Your task to perform on an android device: Search for "alienware area 51" on walmart, select the first entry, add it to the cart, then select checkout. Image 0: 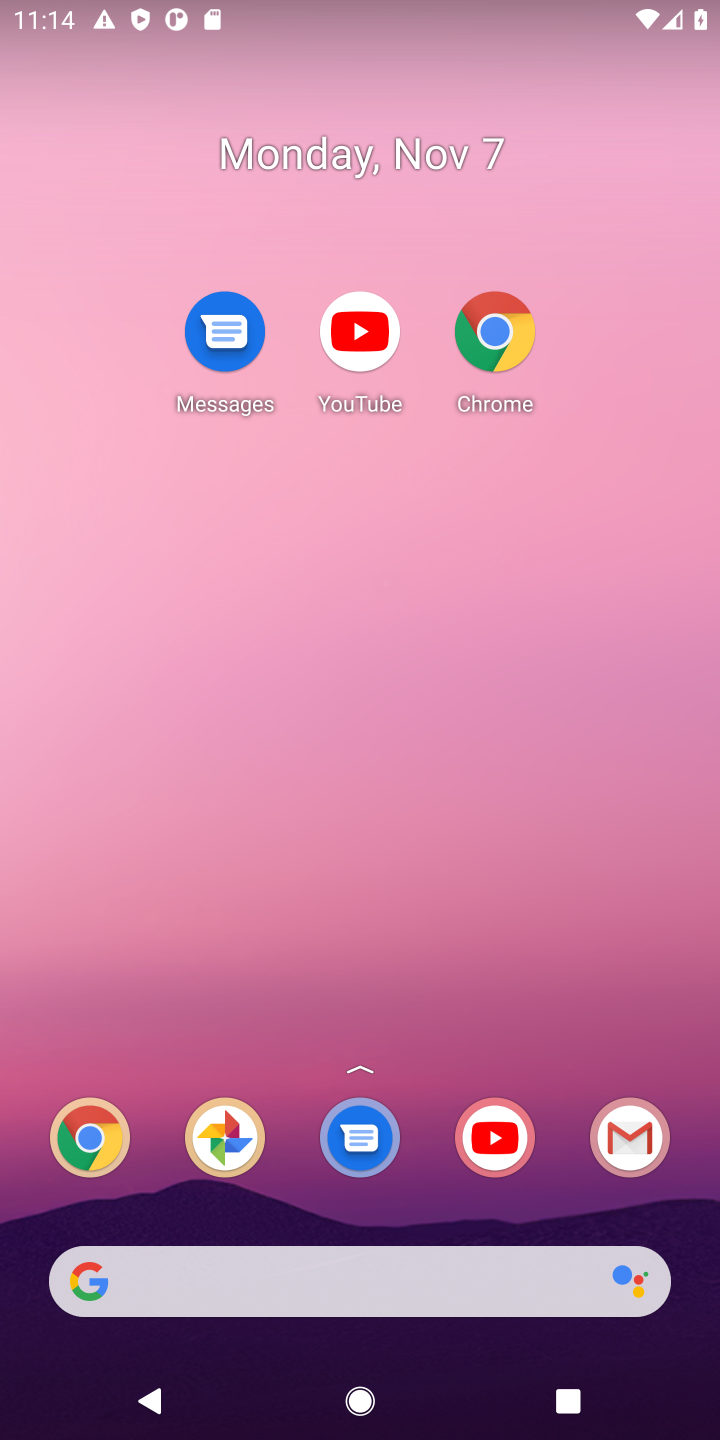
Step 0: drag from (405, 1162) to (408, 257)
Your task to perform on an android device: Search for "alienware area 51" on walmart, select the first entry, add it to the cart, then select checkout. Image 1: 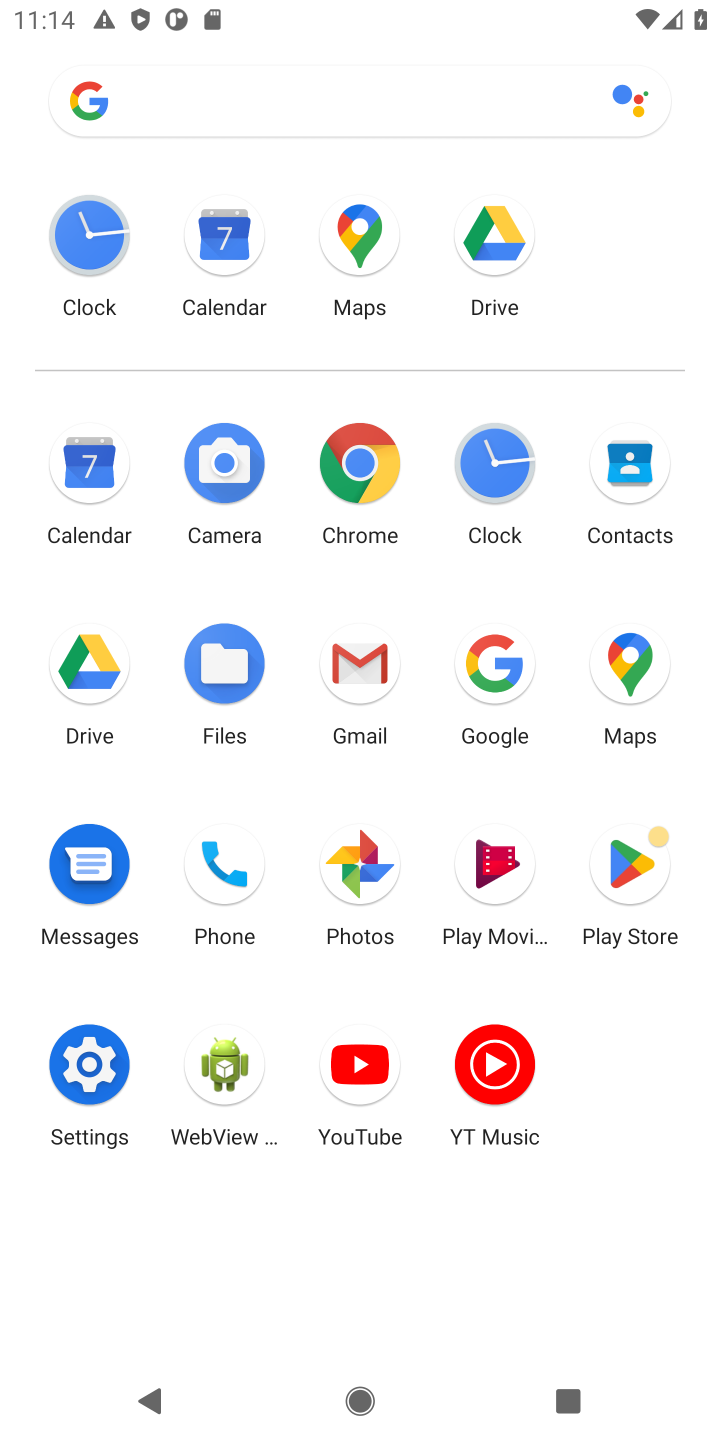
Step 1: click (365, 470)
Your task to perform on an android device: Search for "alienware area 51" on walmart, select the first entry, add it to the cart, then select checkout. Image 2: 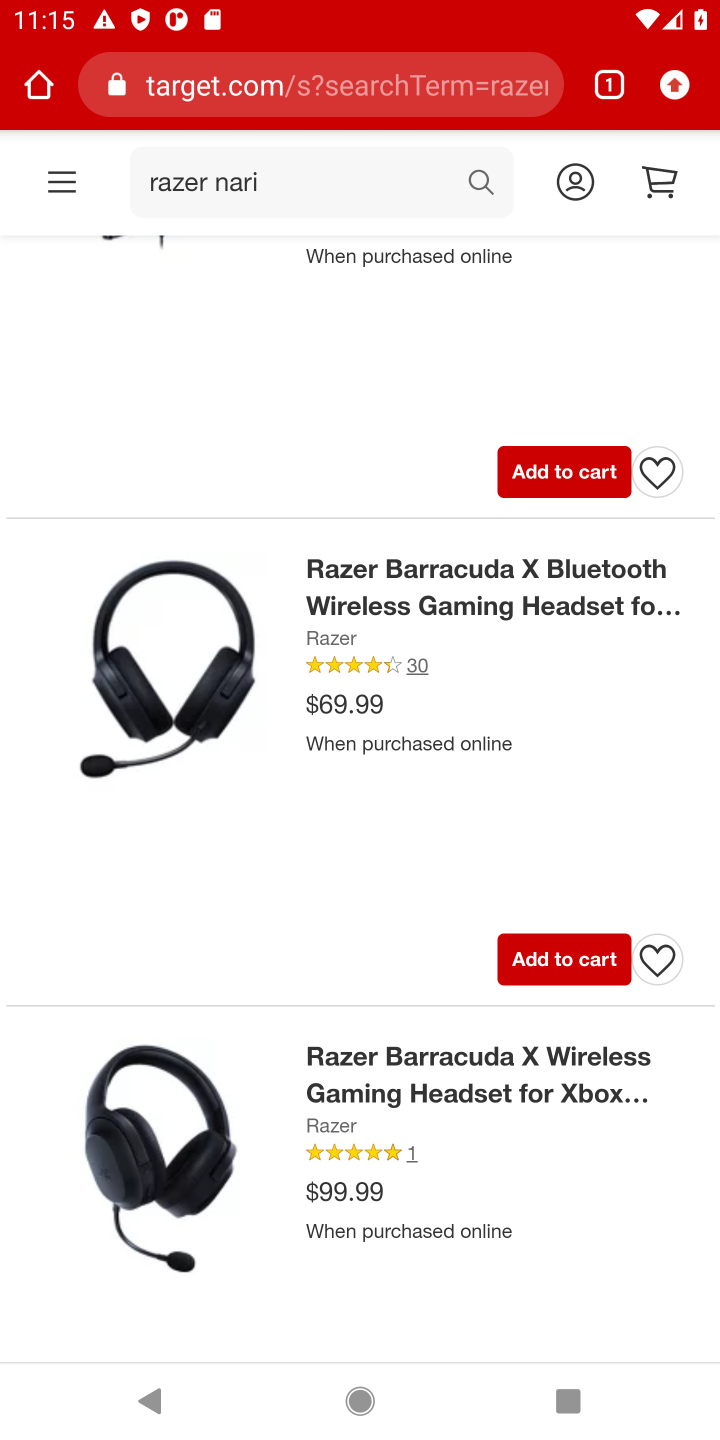
Step 2: click (335, 85)
Your task to perform on an android device: Search for "alienware area 51" on walmart, select the first entry, add it to the cart, then select checkout. Image 3: 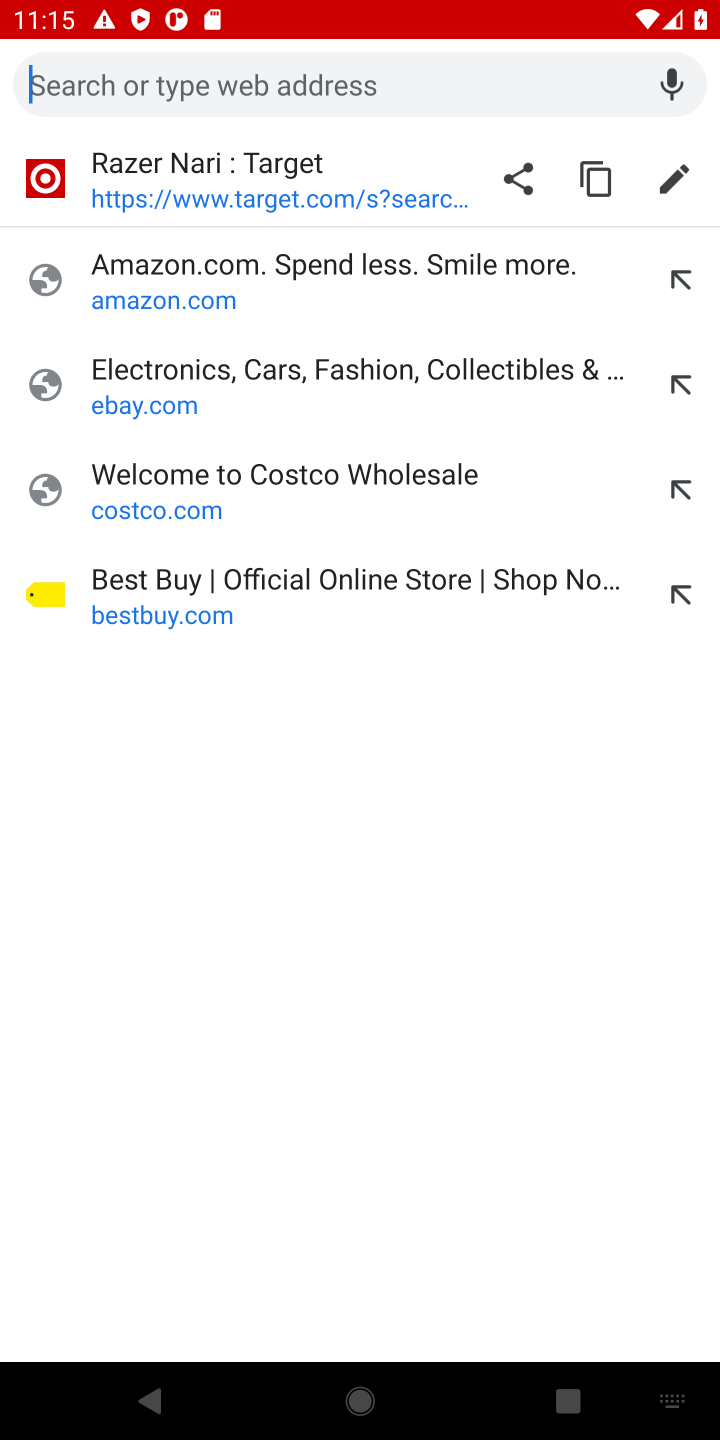
Step 3: type "walmart.com"
Your task to perform on an android device: Search for "alienware area 51" on walmart, select the first entry, add it to the cart, then select checkout. Image 4: 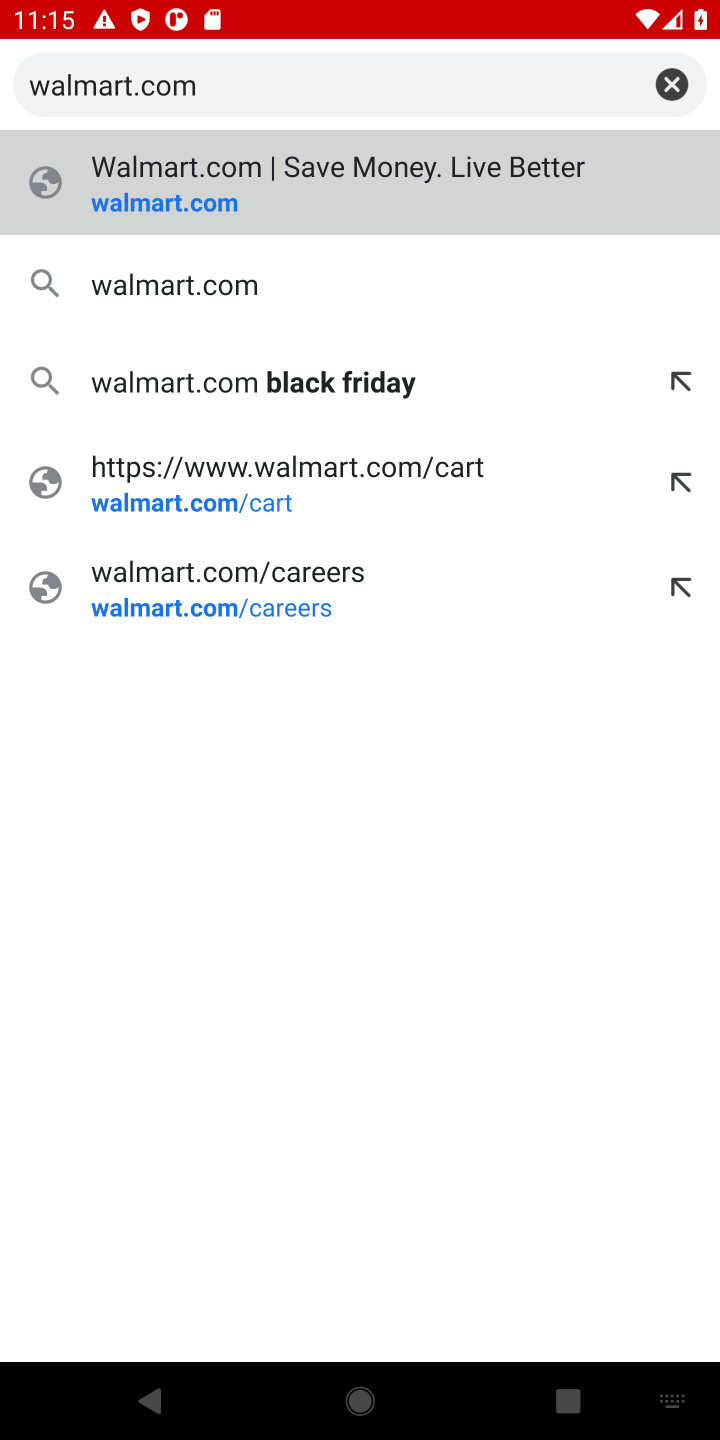
Step 4: press enter
Your task to perform on an android device: Search for "alienware area 51" on walmart, select the first entry, add it to the cart, then select checkout. Image 5: 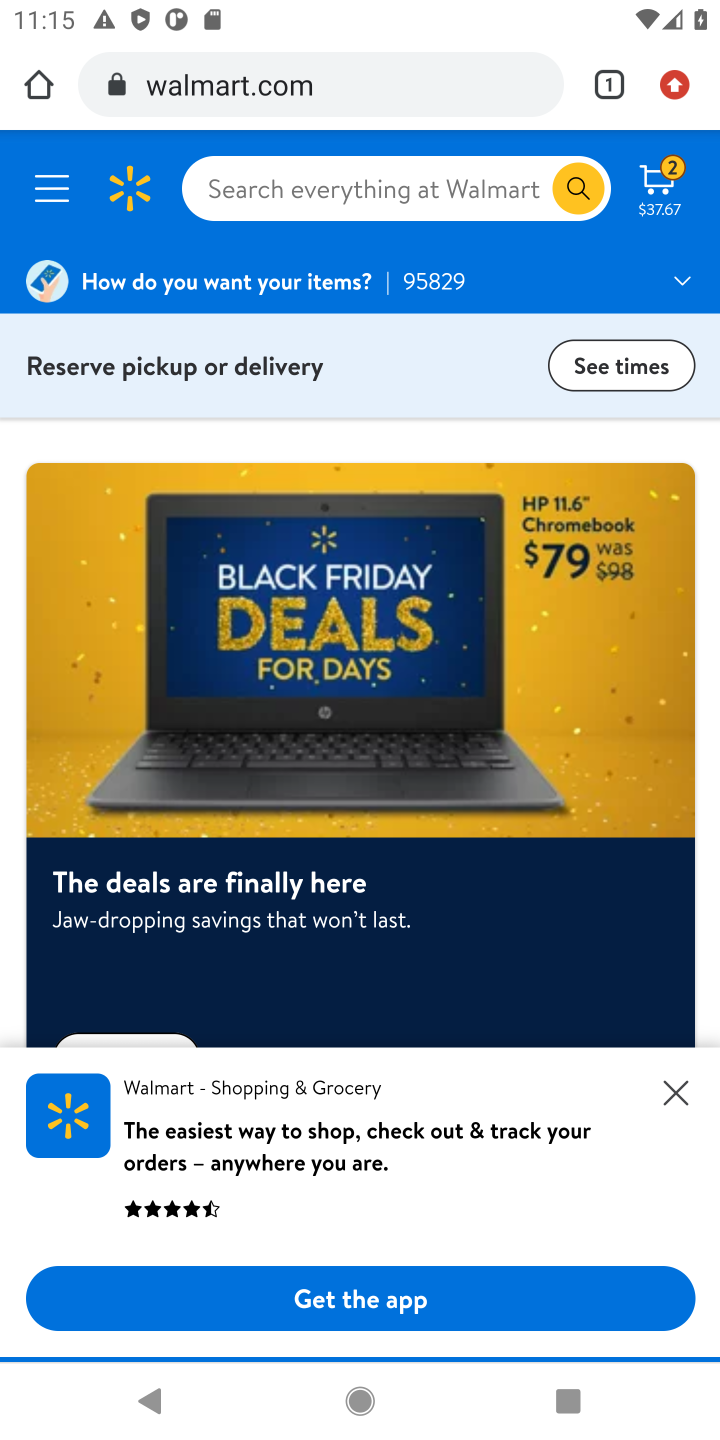
Step 5: click (405, 202)
Your task to perform on an android device: Search for "alienware area 51" on walmart, select the first entry, add it to the cart, then select checkout. Image 6: 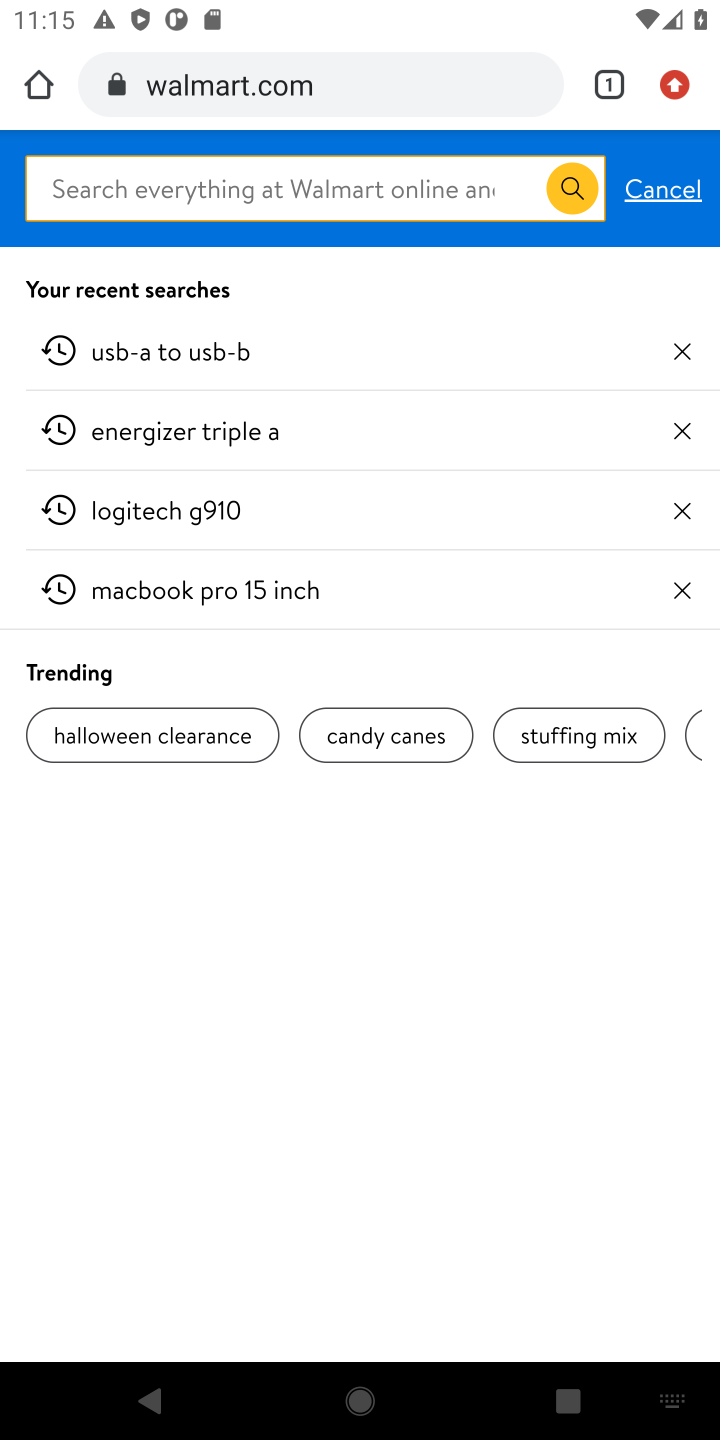
Step 6: type "alienware area 51"
Your task to perform on an android device: Search for "alienware area 51" on walmart, select the first entry, add it to the cart, then select checkout. Image 7: 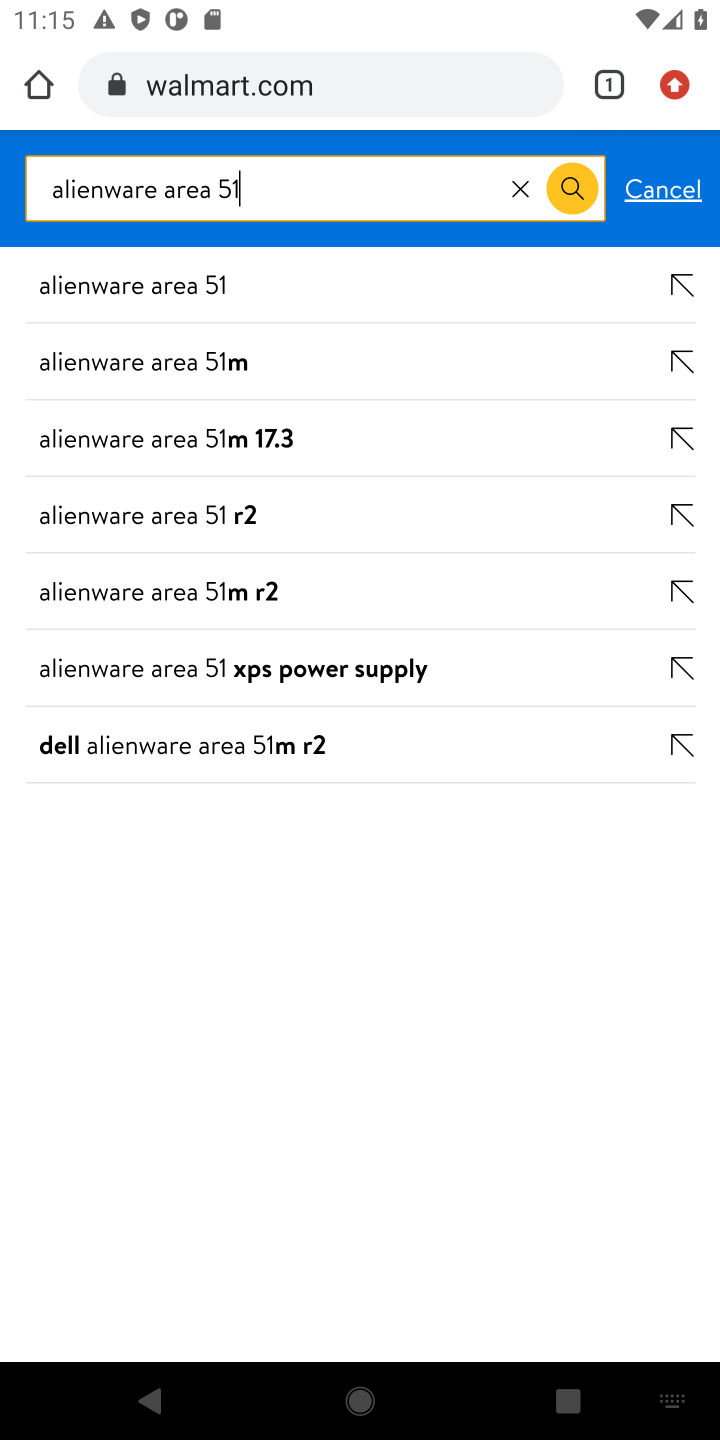
Step 7: press enter
Your task to perform on an android device: Search for "alienware area 51" on walmart, select the first entry, add it to the cart, then select checkout. Image 8: 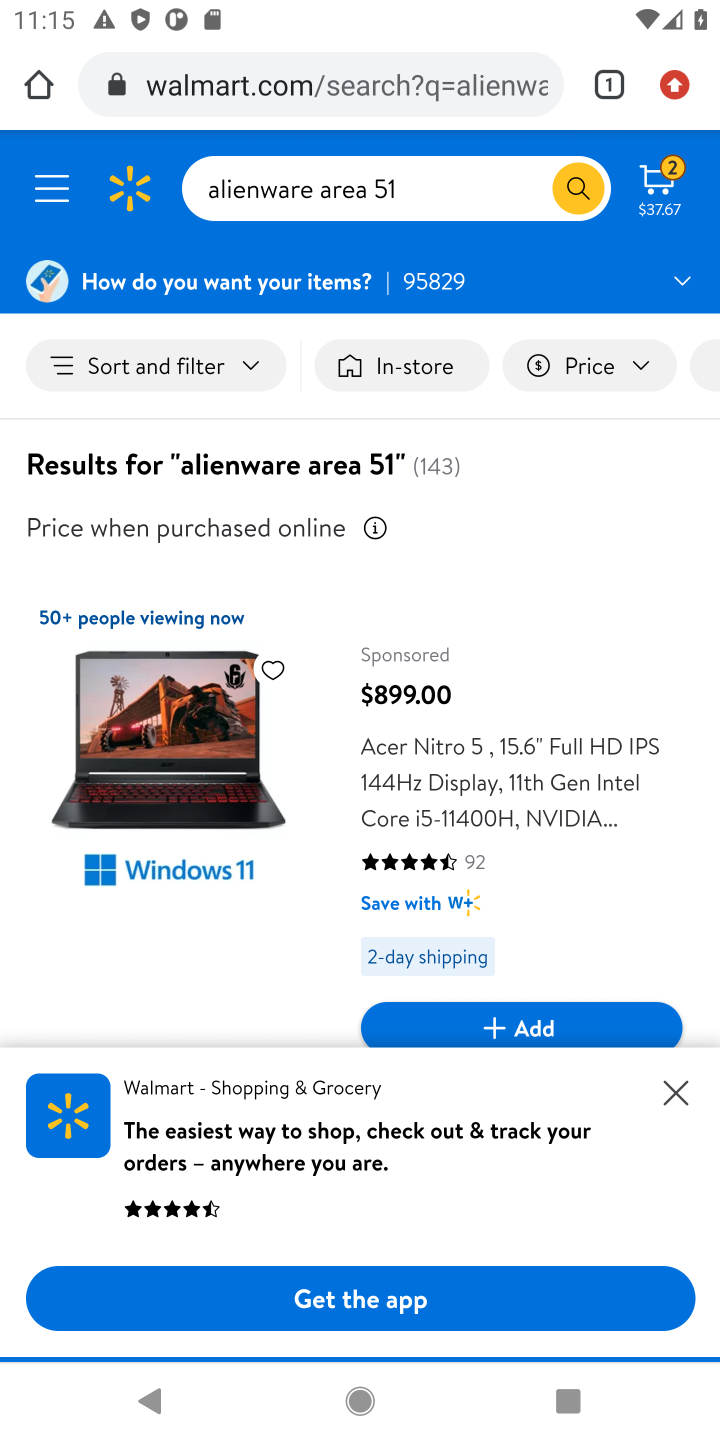
Step 8: drag from (469, 882) to (434, 467)
Your task to perform on an android device: Search for "alienware area 51" on walmart, select the first entry, add it to the cart, then select checkout. Image 9: 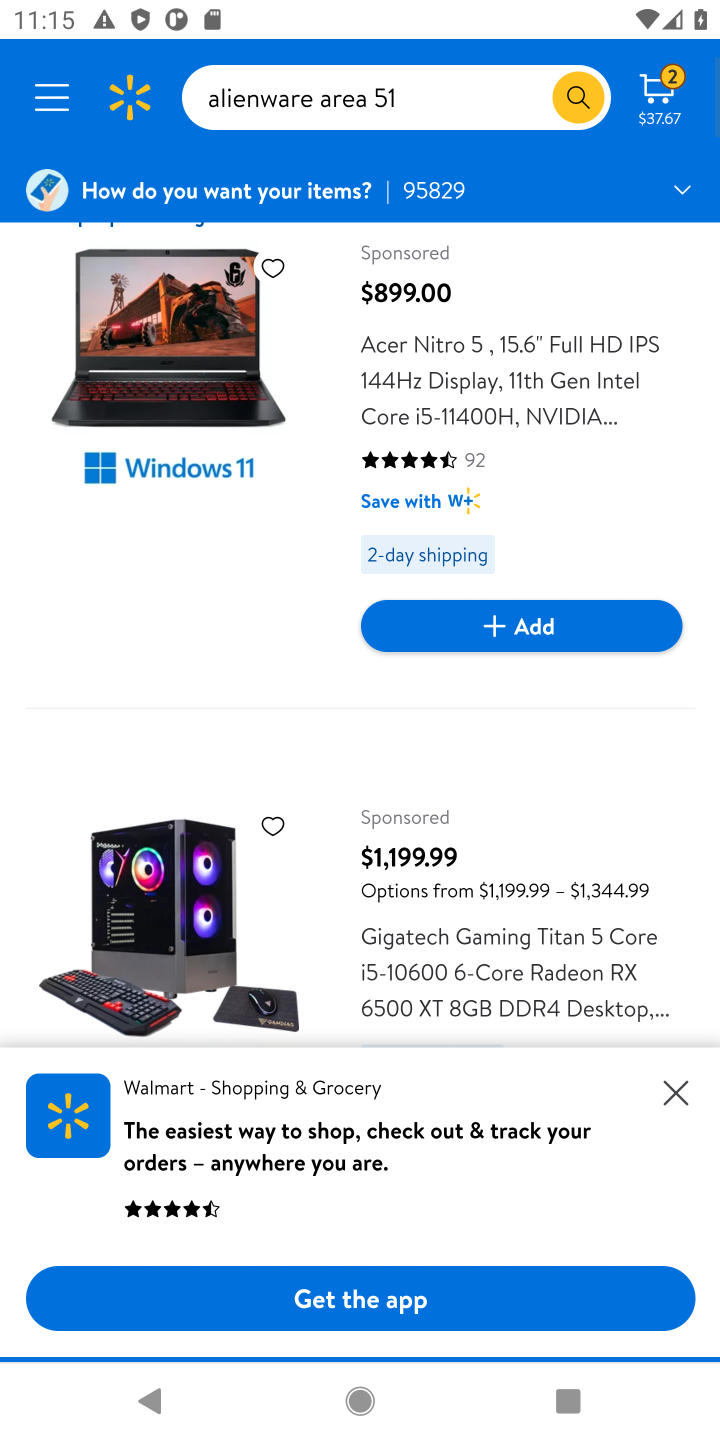
Step 9: drag from (464, 996) to (428, 274)
Your task to perform on an android device: Search for "alienware area 51" on walmart, select the first entry, add it to the cart, then select checkout. Image 10: 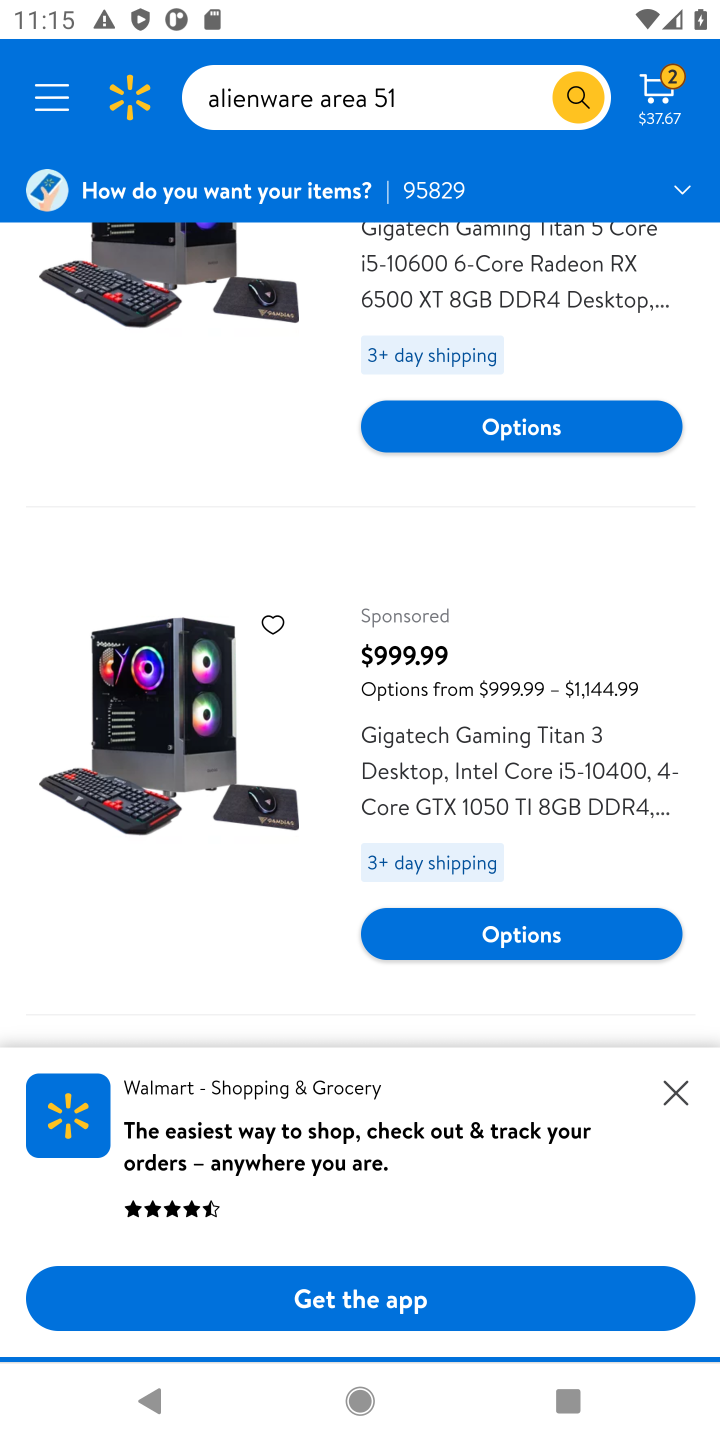
Step 10: drag from (570, 829) to (555, 344)
Your task to perform on an android device: Search for "alienware area 51" on walmart, select the first entry, add it to the cart, then select checkout. Image 11: 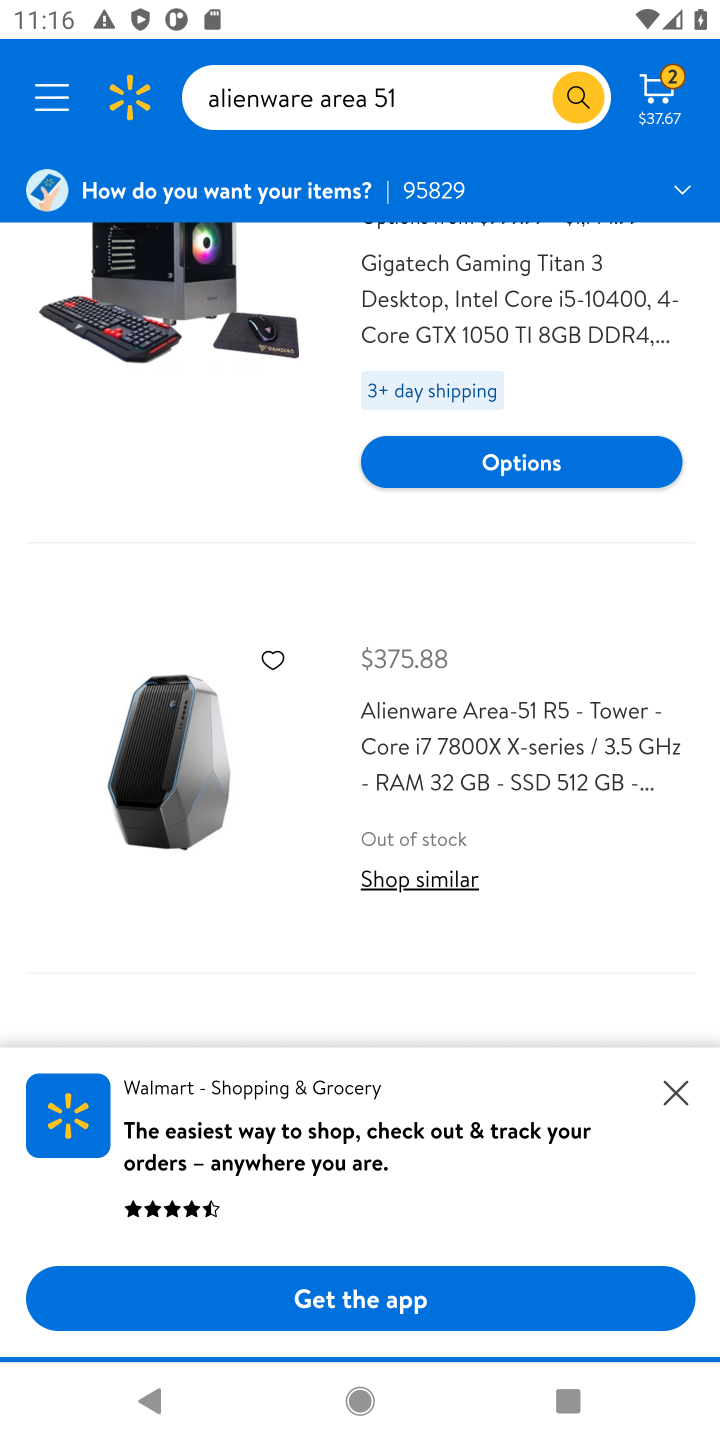
Step 11: drag from (486, 955) to (579, 303)
Your task to perform on an android device: Search for "alienware area 51" on walmart, select the first entry, add it to the cart, then select checkout. Image 12: 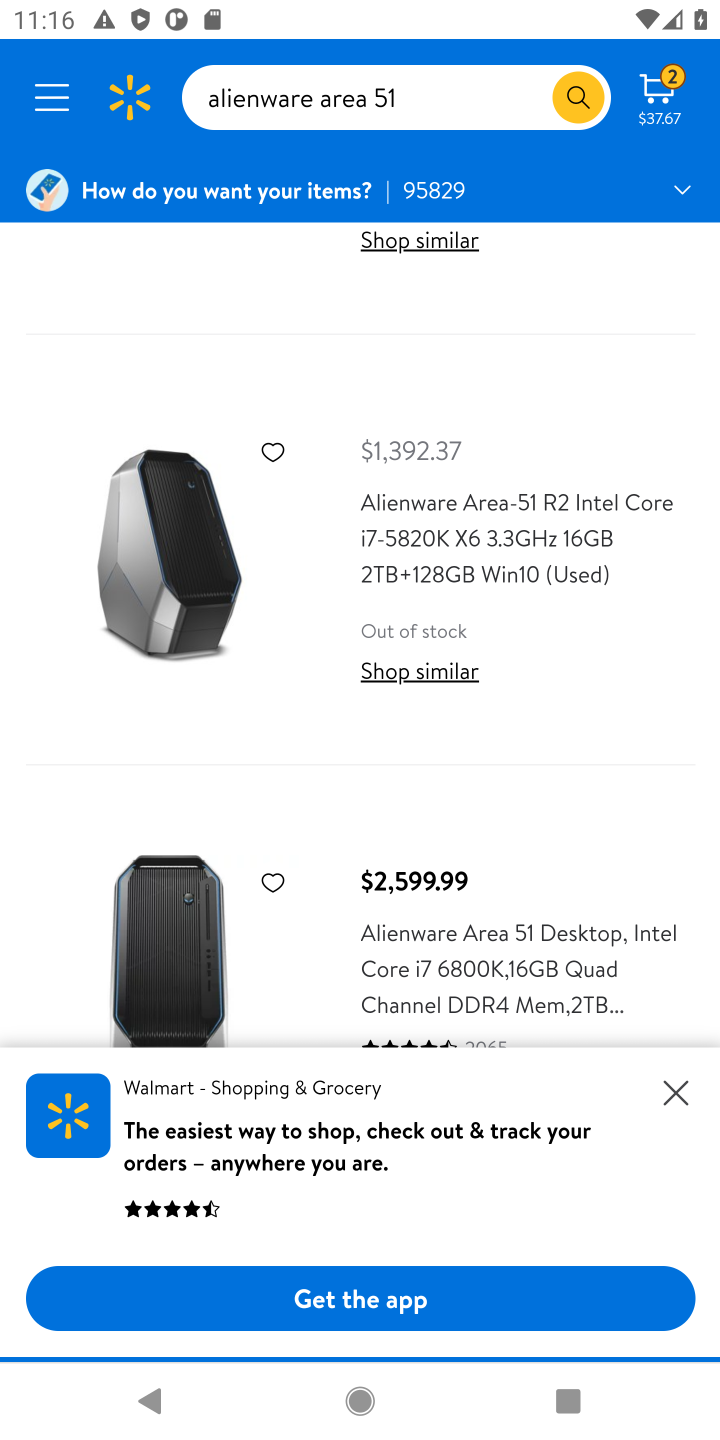
Step 12: drag from (590, 305) to (480, 799)
Your task to perform on an android device: Search for "alienware area 51" on walmart, select the first entry, add it to the cart, then select checkout. Image 13: 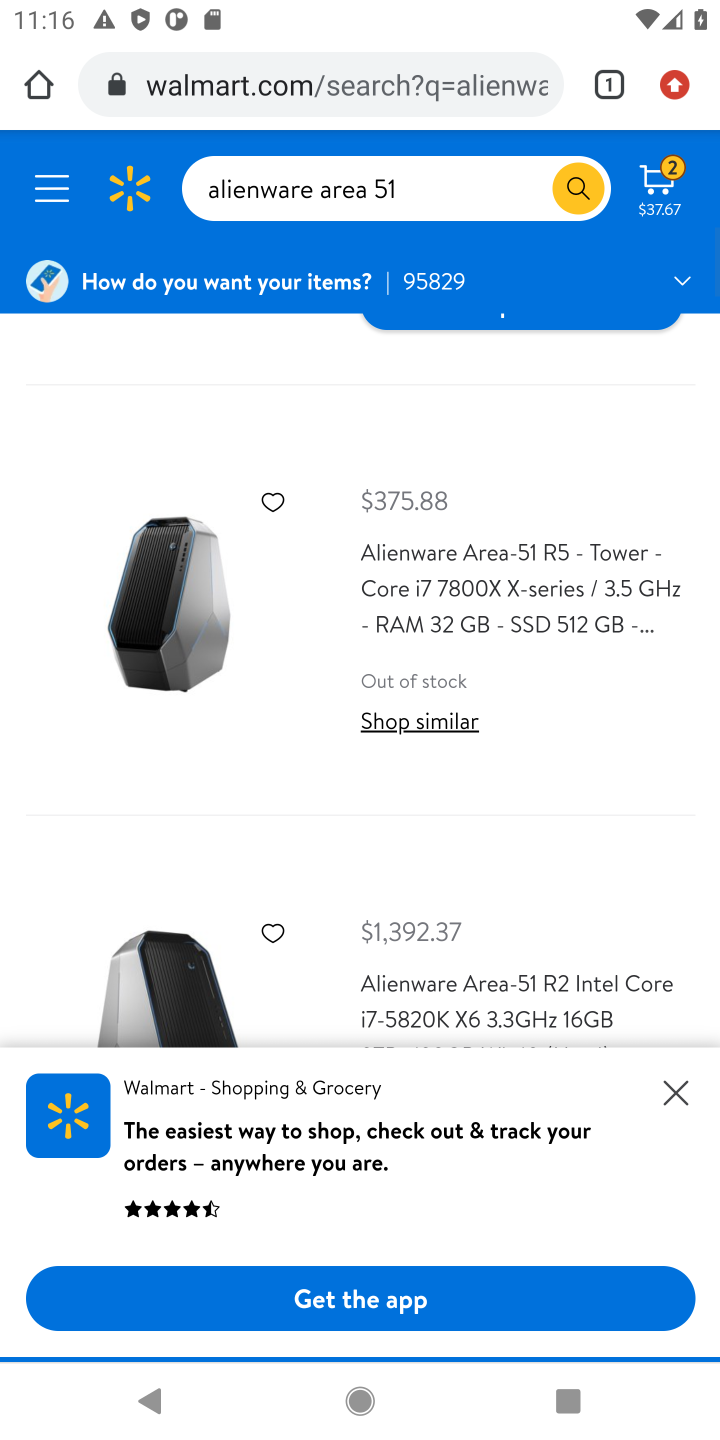
Step 13: click (561, 431)
Your task to perform on an android device: Search for "alienware area 51" on walmart, select the first entry, add it to the cart, then select checkout. Image 14: 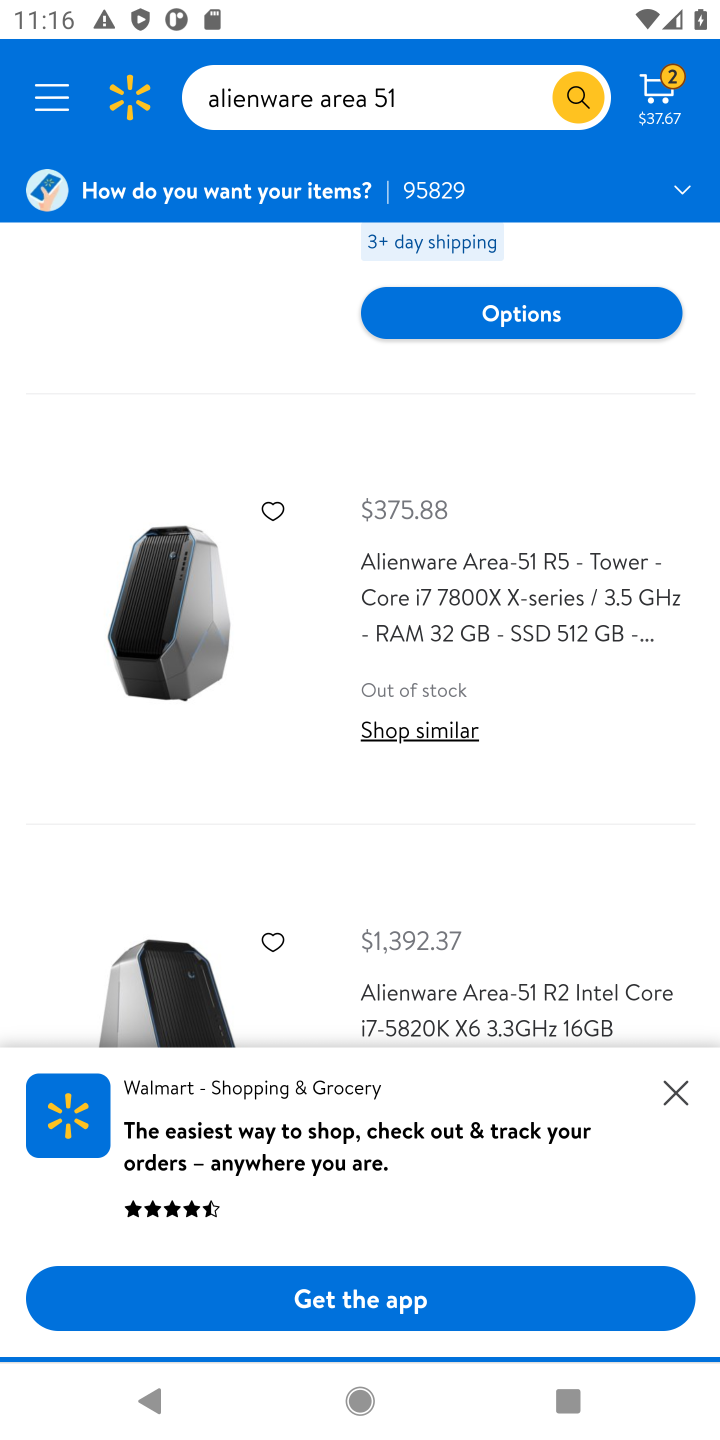
Step 14: click (453, 590)
Your task to perform on an android device: Search for "alienware area 51" on walmart, select the first entry, add it to the cart, then select checkout. Image 15: 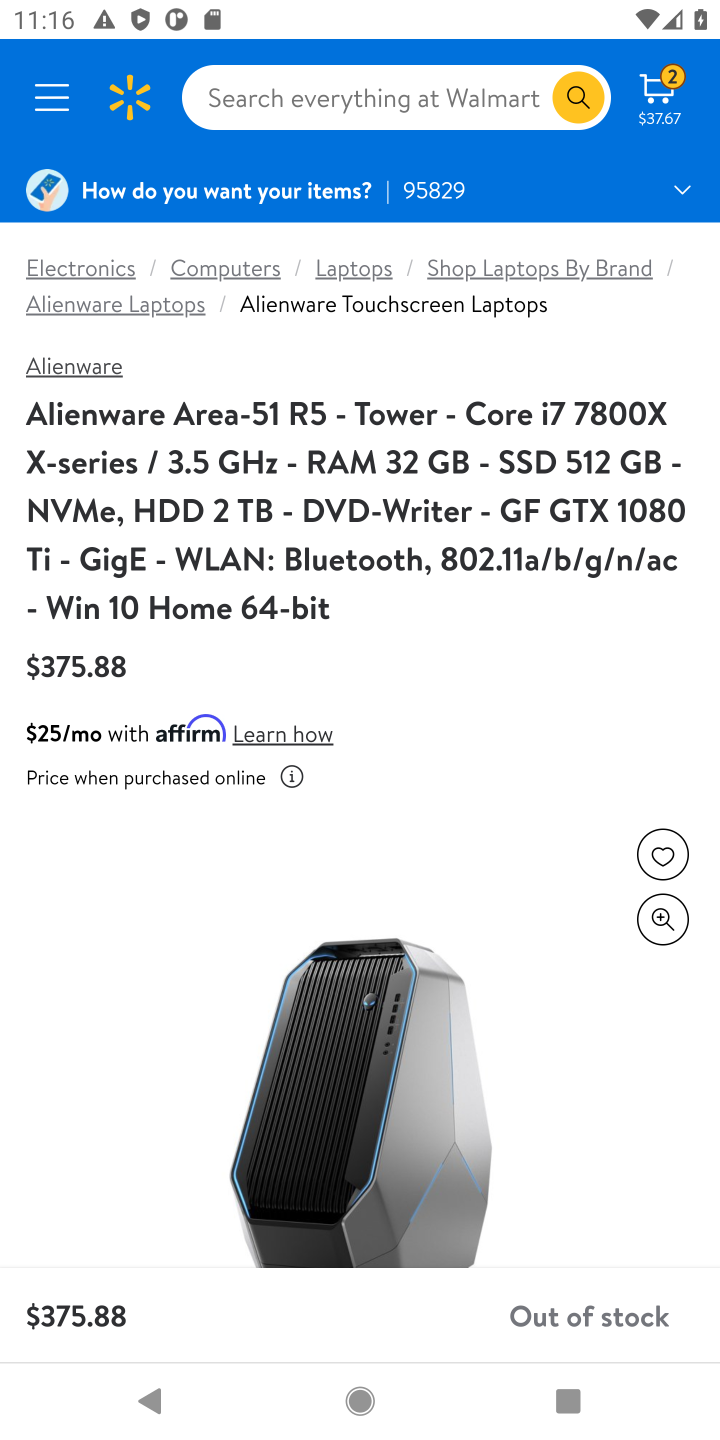
Step 15: task complete